Your task to perform on an android device: turn pop-ups off in chrome Image 0: 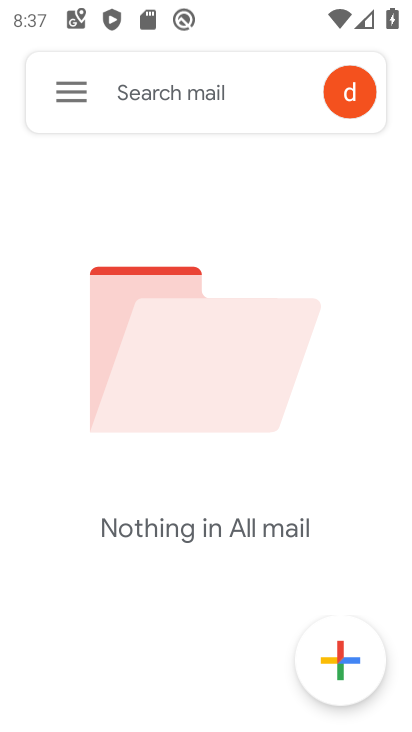
Step 0: press home button
Your task to perform on an android device: turn pop-ups off in chrome Image 1: 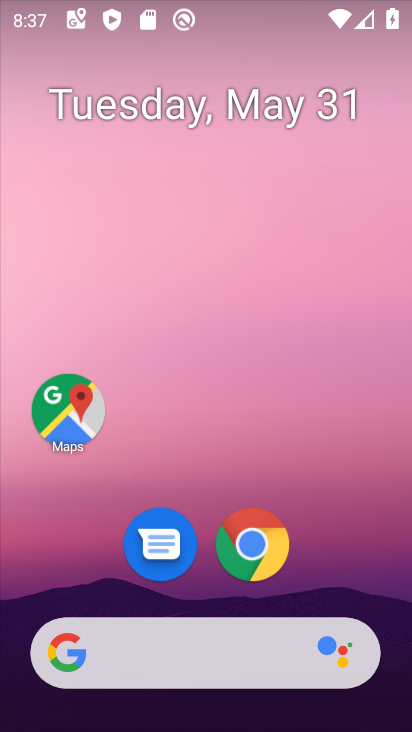
Step 1: click (254, 557)
Your task to perform on an android device: turn pop-ups off in chrome Image 2: 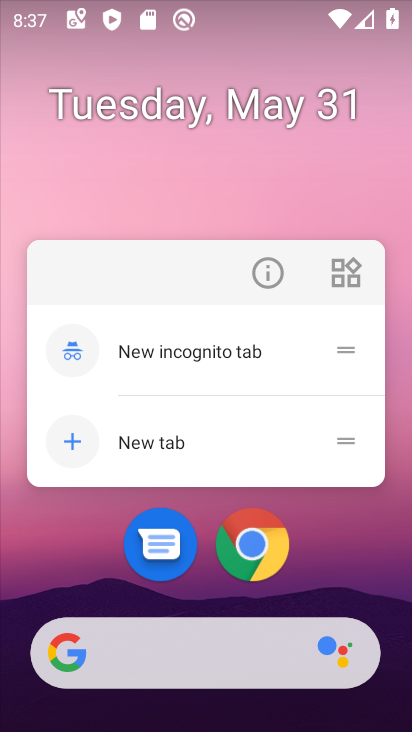
Step 2: click (245, 538)
Your task to perform on an android device: turn pop-ups off in chrome Image 3: 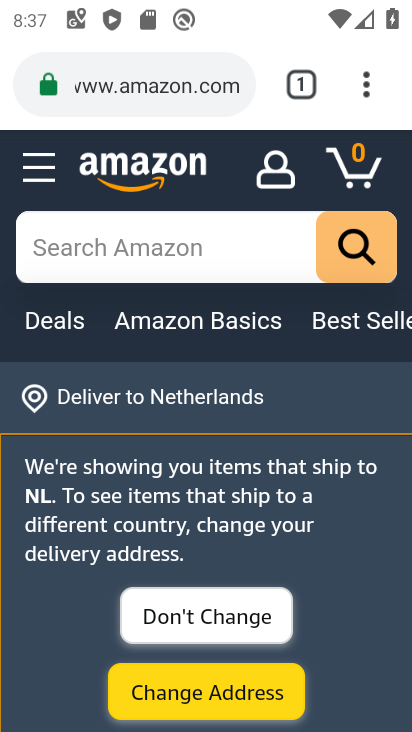
Step 3: click (362, 96)
Your task to perform on an android device: turn pop-ups off in chrome Image 4: 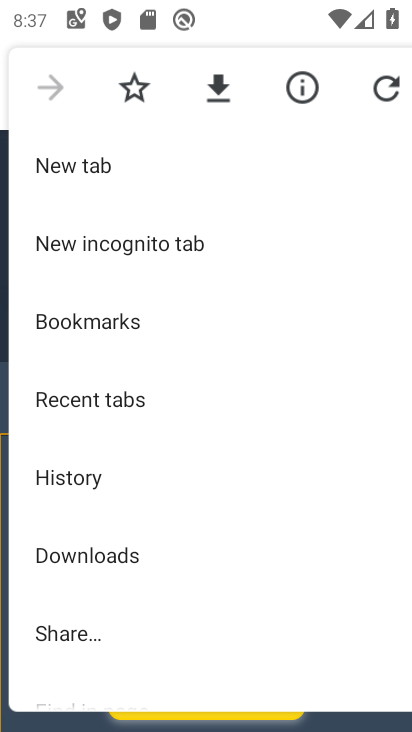
Step 4: drag from (174, 636) to (187, 150)
Your task to perform on an android device: turn pop-ups off in chrome Image 5: 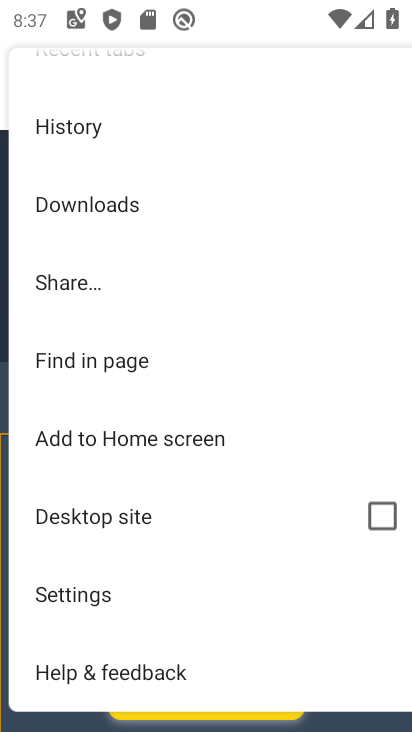
Step 5: click (121, 586)
Your task to perform on an android device: turn pop-ups off in chrome Image 6: 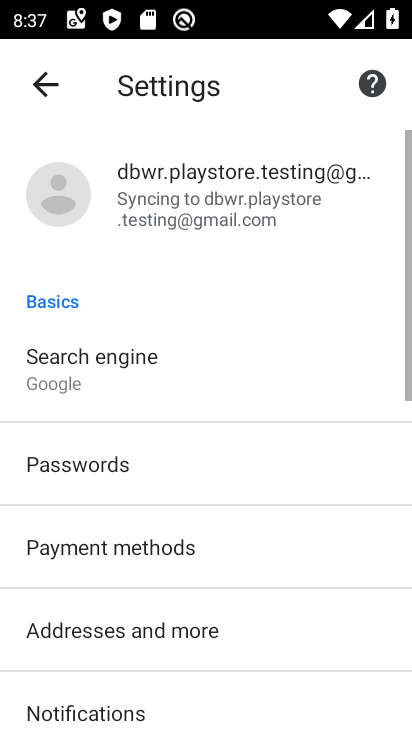
Step 6: drag from (175, 613) to (194, 168)
Your task to perform on an android device: turn pop-ups off in chrome Image 7: 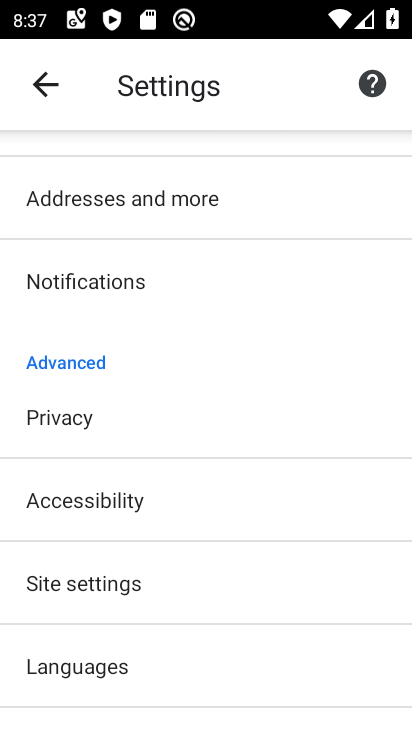
Step 7: click (141, 592)
Your task to perform on an android device: turn pop-ups off in chrome Image 8: 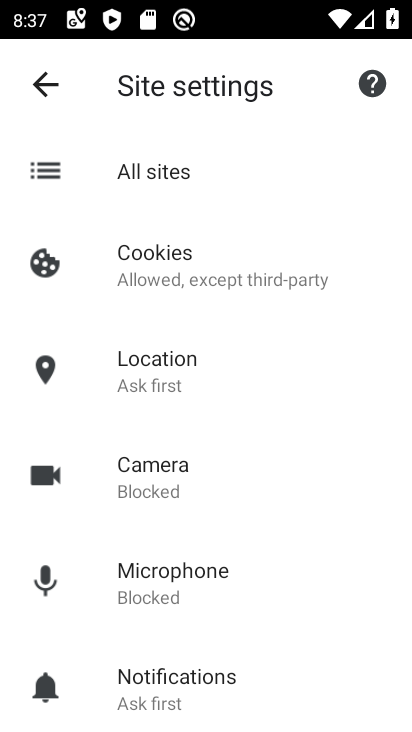
Step 8: drag from (217, 689) to (270, 363)
Your task to perform on an android device: turn pop-ups off in chrome Image 9: 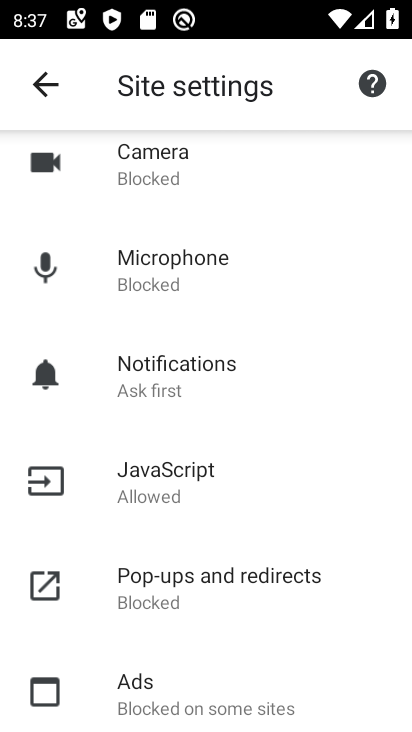
Step 9: click (194, 613)
Your task to perform on an android device: turn pop-ups off in chrome Image 10: 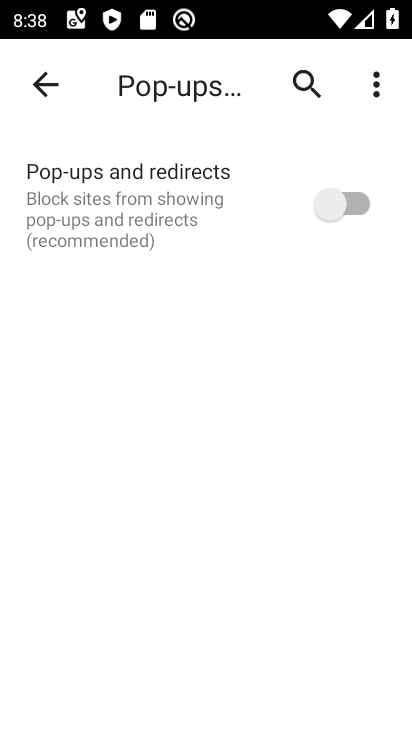
Step 10: task complete